Your task to perform on an android device: Open notification settings Image 0: 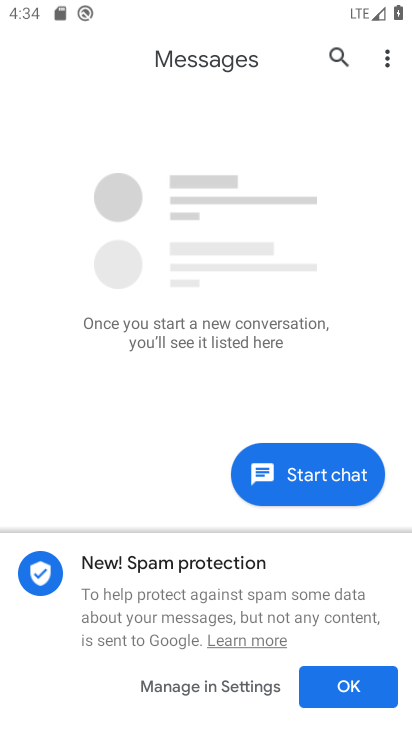
Step 0: press home button
Your task to perform on an android device: Open notification settings Image 1: 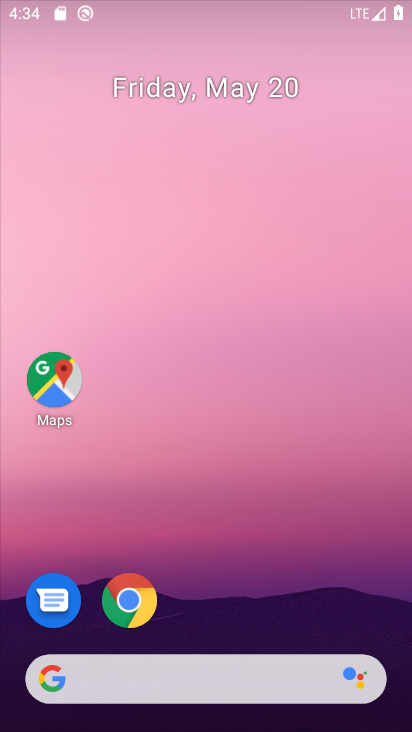
Step 1: drag from (304, 503) to (216, 27)
Your task to perform on an android device: Open notification settings Image 2: 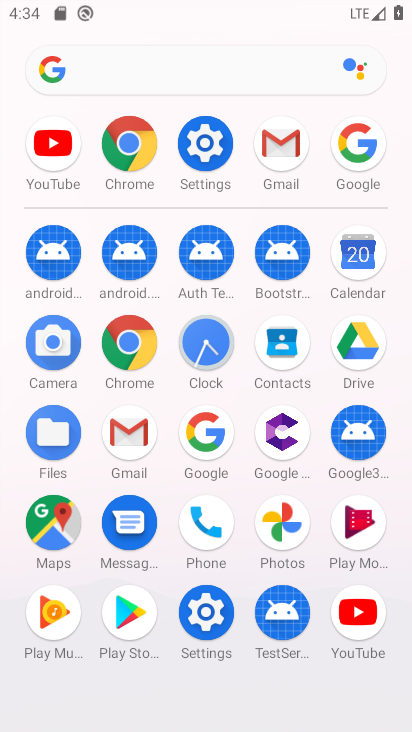
Step 2: click (209, 127)
Your task to perform on an android device: Open notification settings Image 3: 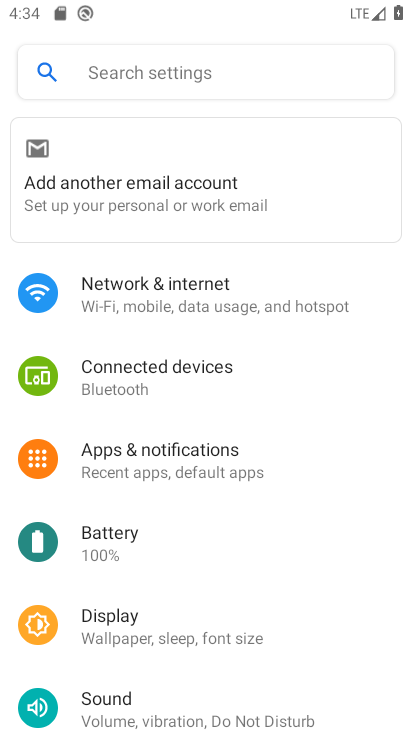
Step 3: click (207, 466)
Your task to perform on an android device: Open notification settings Image 4: 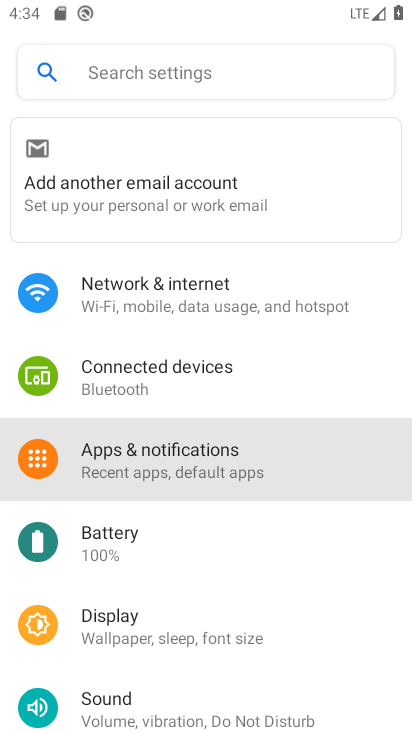
Step 4: task complete